Your task to perform on an android device: Open Android settings Image 0: 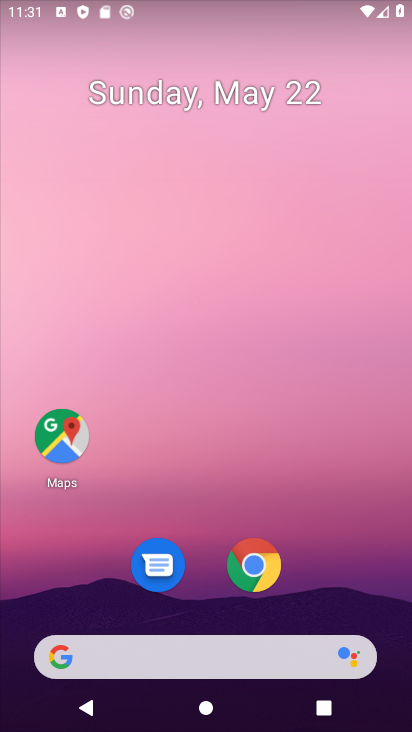
Step 0: click (217, 366)
Your task to perform on an android device: Open Android settings Image 1: 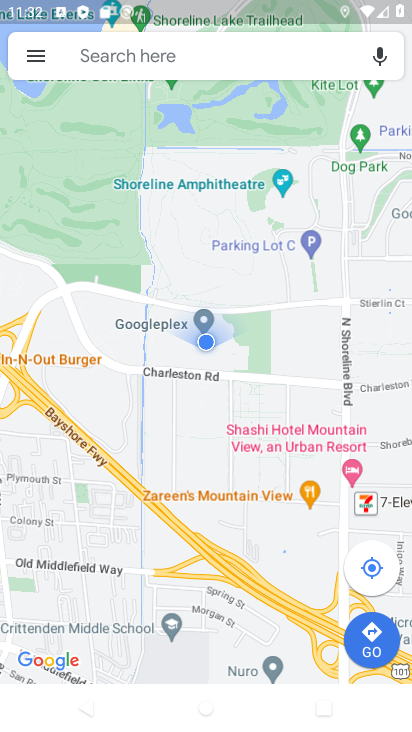
Step 1: press home button
Your task to perform on an android device: Open Android settings Image 2: 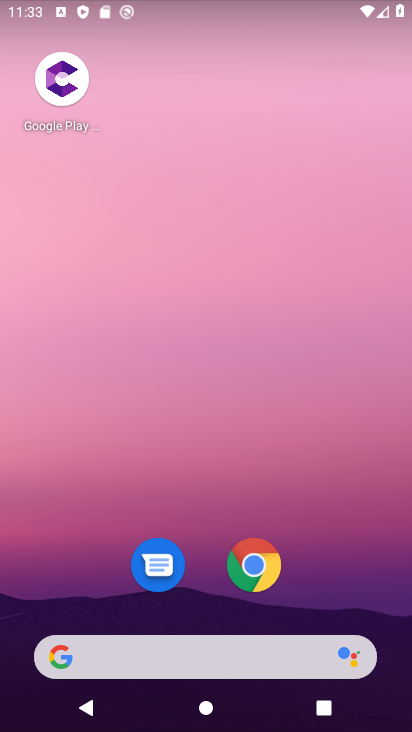
Step 2: drag from (178, 589) to (179, 164)
Your task to perform on an android device: Open Android settings Image 3: 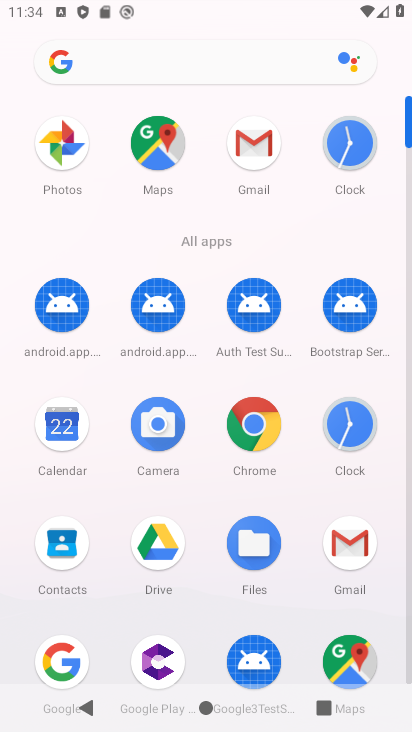
Step 3: drag from (113, 534) to (197, 189)
Your task to perform on an android device: Open Android settings Image 4: 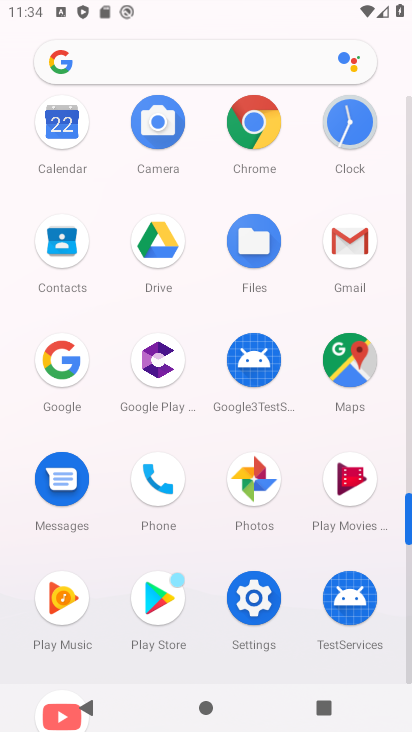
Step 4: click (257, 574)
Your task to perform on an android device: Open Android settings Image 5: 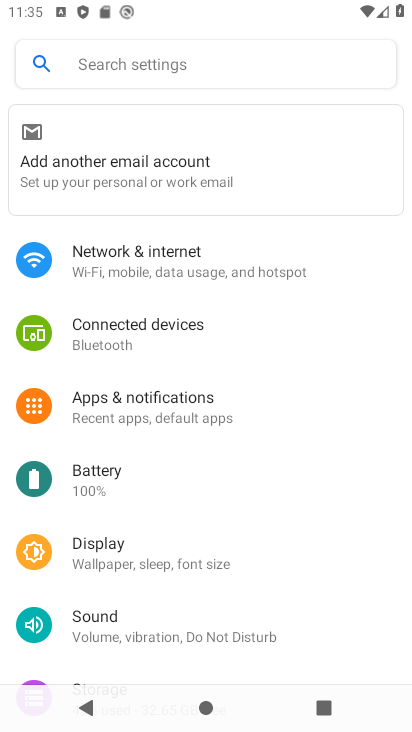
Step 5: task complete